Your task to perform on an android device: uninstall "Pinterest" Image 0: 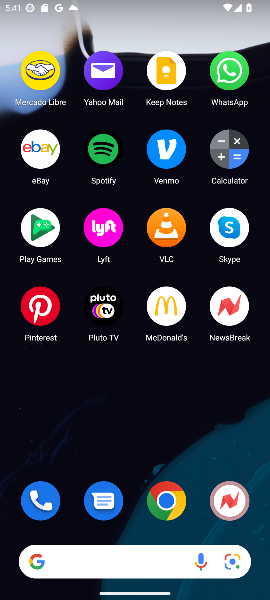
Step 0: drag from (124, 418) to (105, 60)
Your task to perform on an android device: uninstall "Pinterest" Image 1: 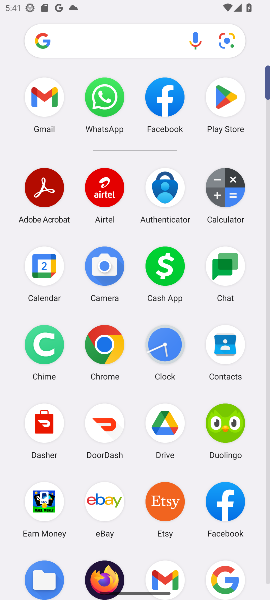
Step 1: click (228, 109)
Your task to perform on an android device: uninstall "Pinterest" Image 2: 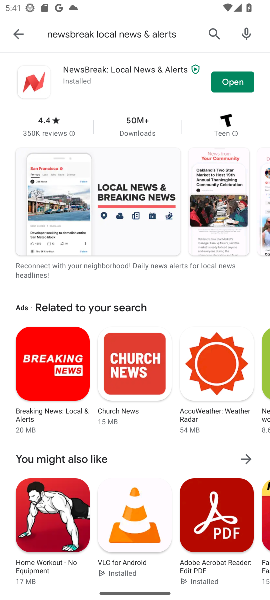
Step 2: click (209, 30)
Your task to perform on an android device: uninstall "Pinterest" Image 3: 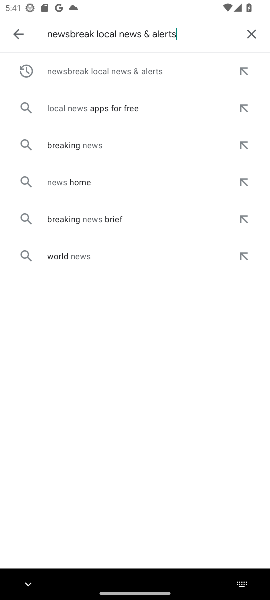
Step 3: click (243, 37)
Your task to perform on an android device: uninstall "Pinterest" Image 4: 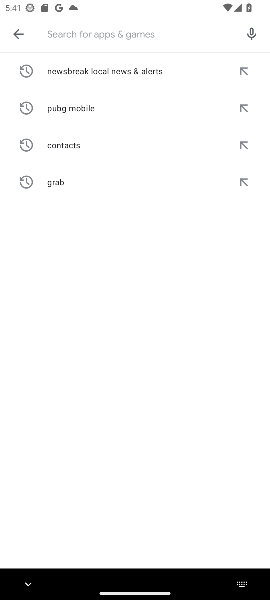
Step 4: type "Pinterest"
Your task to perform on an android device: uninstall "Pinterest" Image 5: 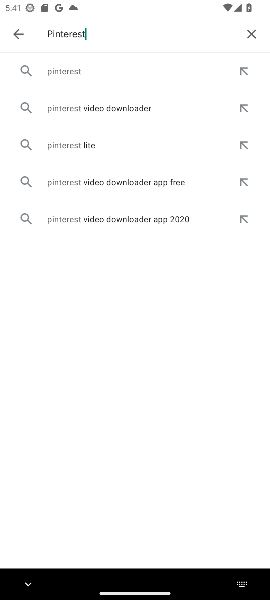
Step 5: click (76, 74)
Your task to perform on an android device: uninstall "Pinterest" Image 6: 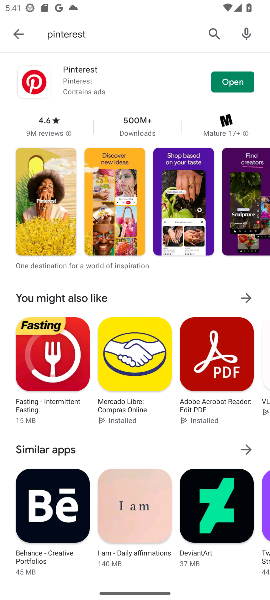
Step 6: click (73, 70)
Your task to perform on an android device: uninstall "Pinterest" Image 7: 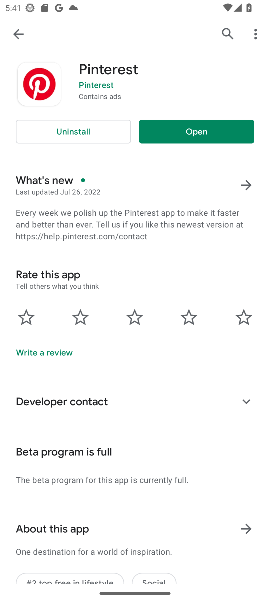
Step 7: click (64, 137)
Your task to perform on an android device: uninstall "Pinterest" Image 8: 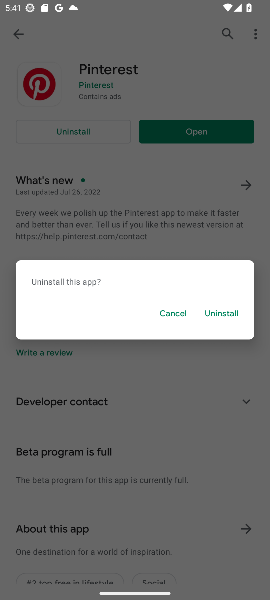
Step 8: click (210, 315)
Your task to perform on an android device: uninstall "Pinterest" Image 9: 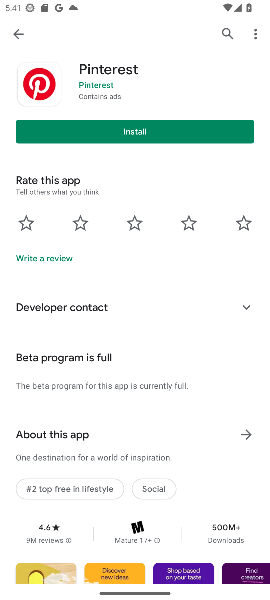
Step 9: task complete